Your task to perform on an android device: turn pop-ups off in chrome Image 0: 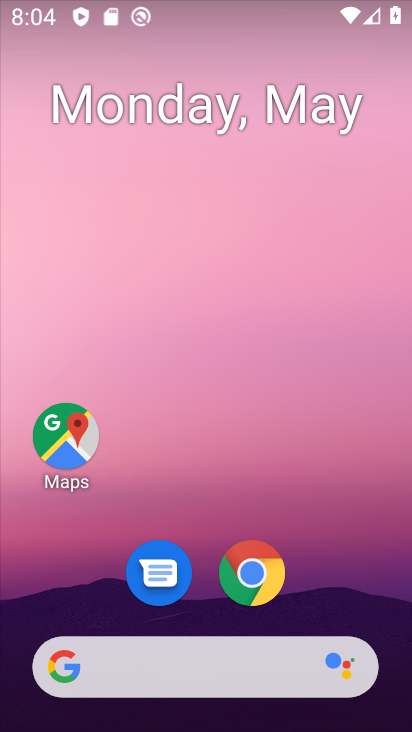
Step 0: drag from (206, 633) to (245, 125)
Your task to perform on an android device: turn pop-ups off in chrome Image 1: 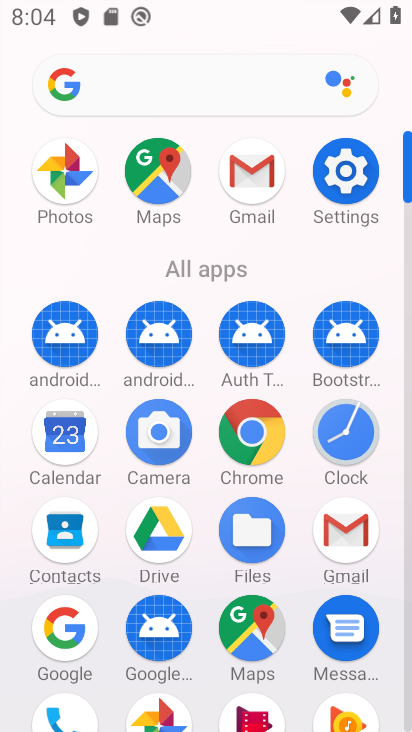
Step 1: click (264, 442)
Your task to perform on an android device: turn pop-ups off in chrome Image 2: 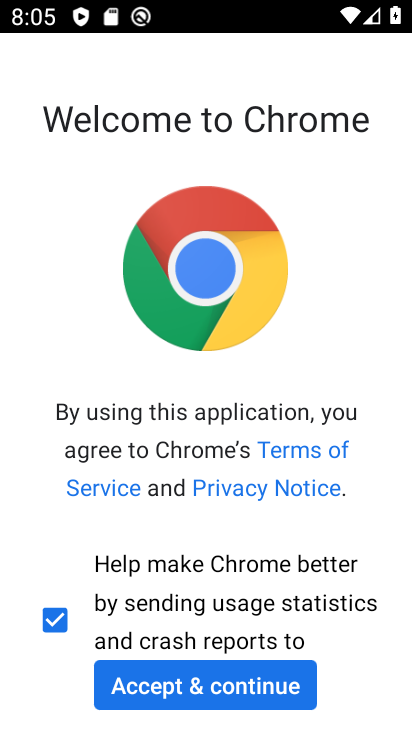
Step 2: click (194, 697)
Your task to perform on an android device: turn pop-ups off in chrome Image 3: 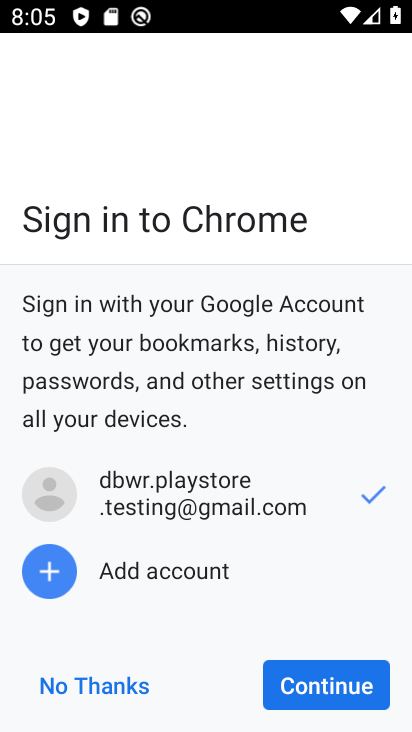
Step 3: click (291, 692)
Your task to perform on an android device: turn pop-ups off in chrome Image 4: 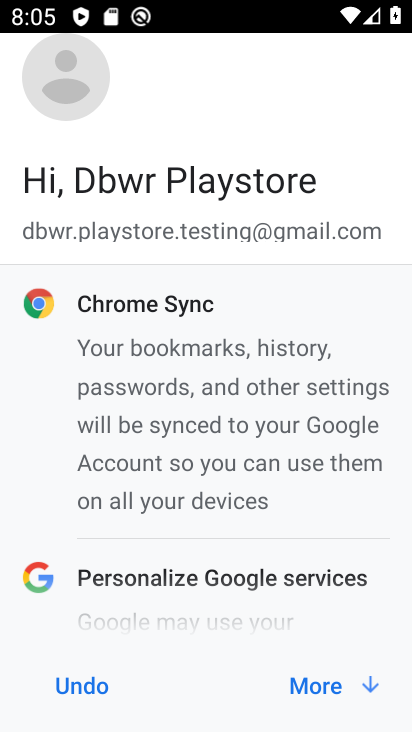
Step 4: click (298, 696)
Your task to perform on an android device: turn pop-ups off in chrome Image 5: 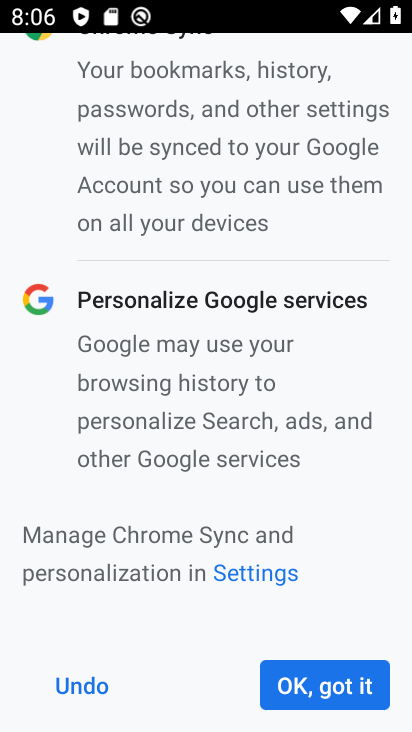
Step 5: click (373, 683)
Your task to perform on an android device: turn pop-ups off in chrome Image 6: 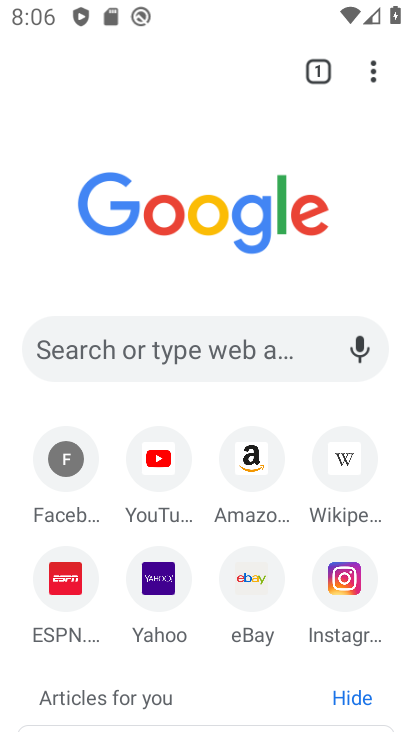
Step 6: click (373, 75)
Your task to perform on an android device: turn pop-ups off in chrome Image 7: 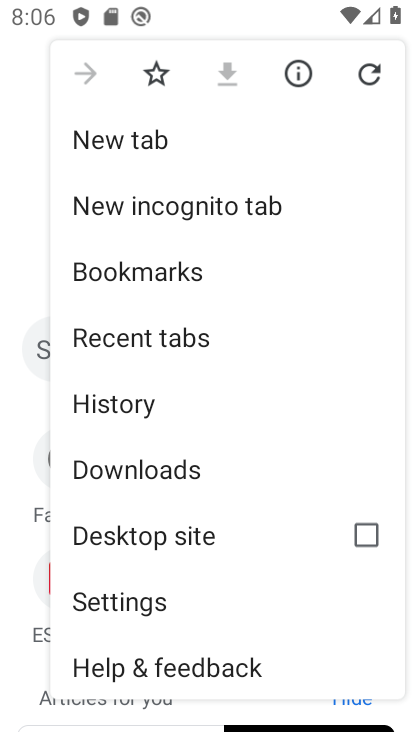
Step 7: click (155, 610)
Your task to perform on an android device: turn pop-ups off in chrome Image 8: 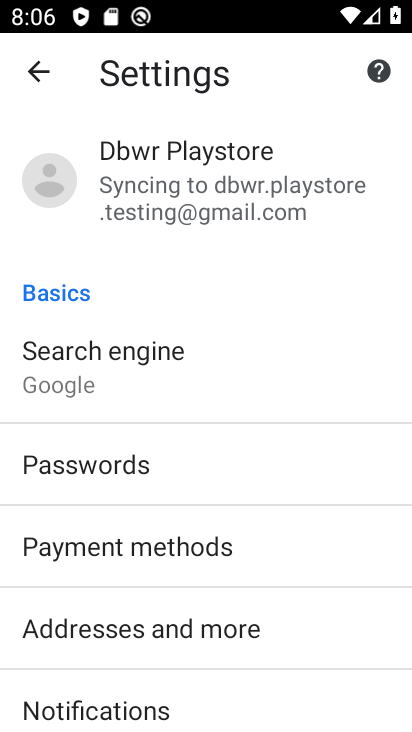
Step 8: drag from (170, 579) to (142, 263)
Your task to perform on an android device: turn pop-ups off in chrome Image 9: 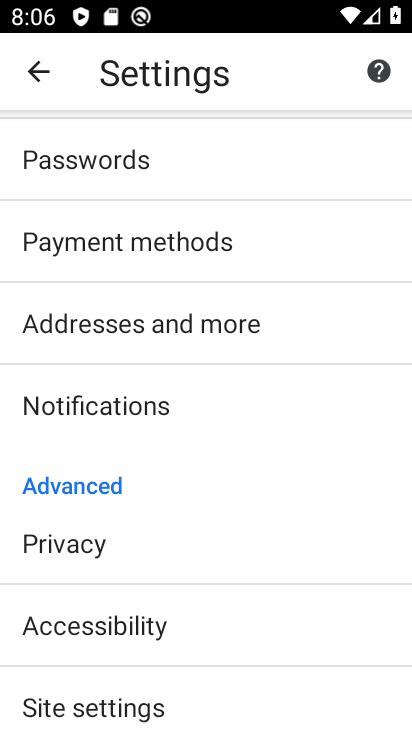
Step 9: click (114, 701)
Your task to perform on an android device: turn pop-ups off in chrome Image 10: 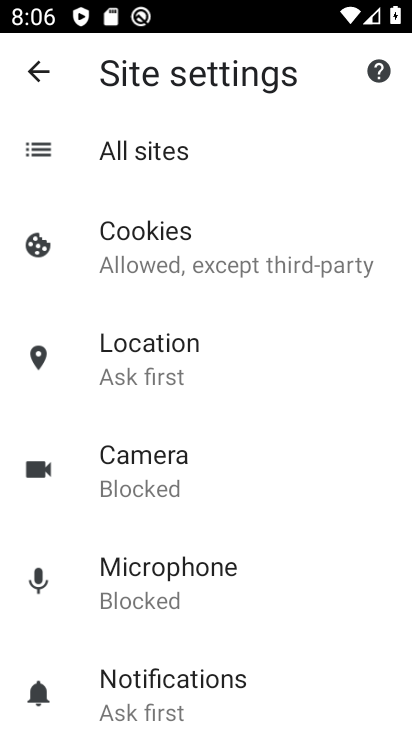
Step 10: drag from (216, 544) to (240, 265)
Your task to perform on an android device: turn pop-ups off in chrome Image 11: 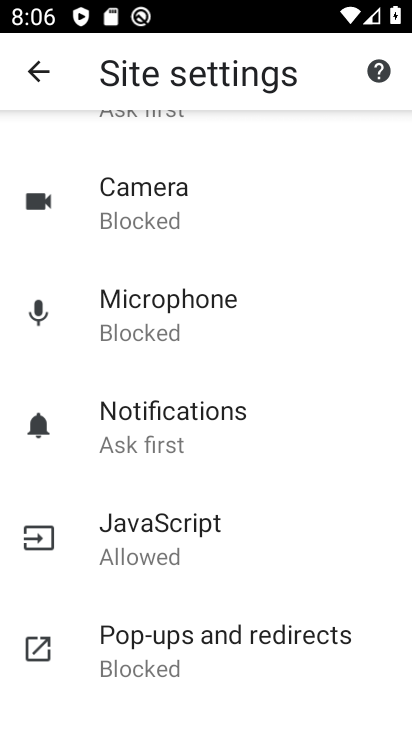
Step 11: drag from (211, 586) to (254, 286)
Your task to perform on an android device: turn pop-ups off in chrome Image 12: 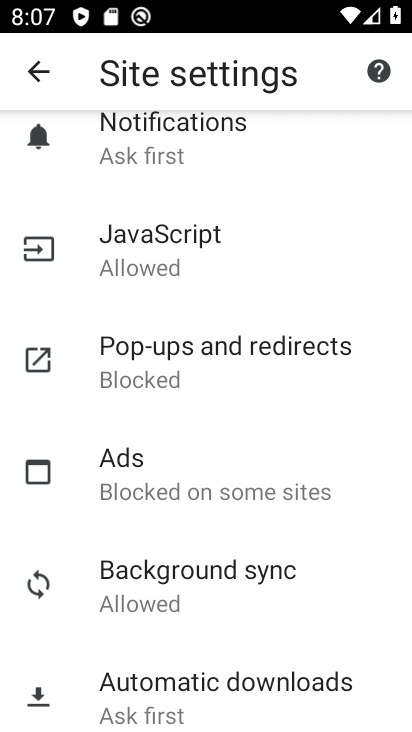
Step 12: drag from (213, 568) to (225, 484)
Your task to perform on an android device: turn pop-ups off in chrome Image 13: 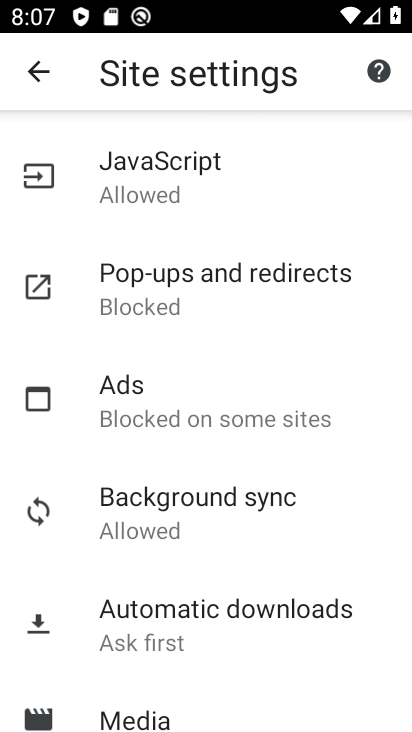
Step 13: click (276, 284)
Your task to perform on an android device: turn pop-ups off in chrome Image 14: 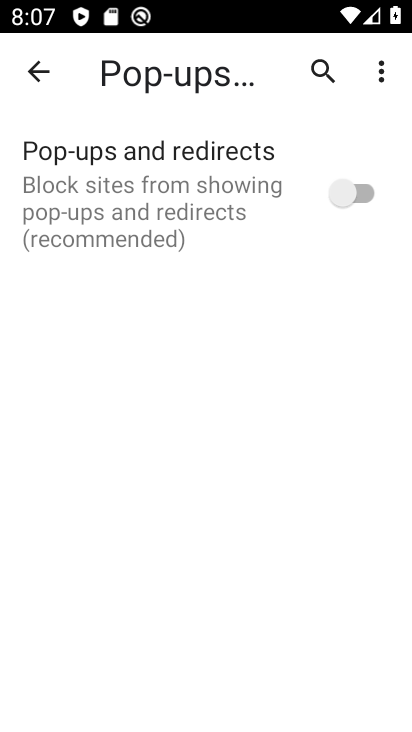
Step 14: task complete